Your task to perform on an android device: Open Yahoo.com Image 0: 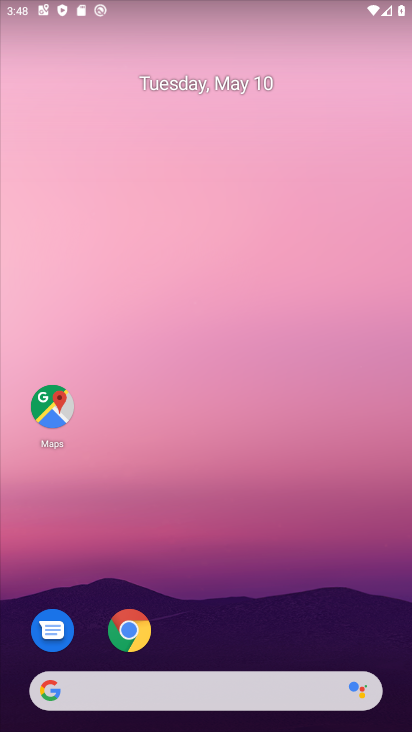
Step 0: click (130, 637)
Your task to perform on an android device: Open Yahoo.com Image 1: 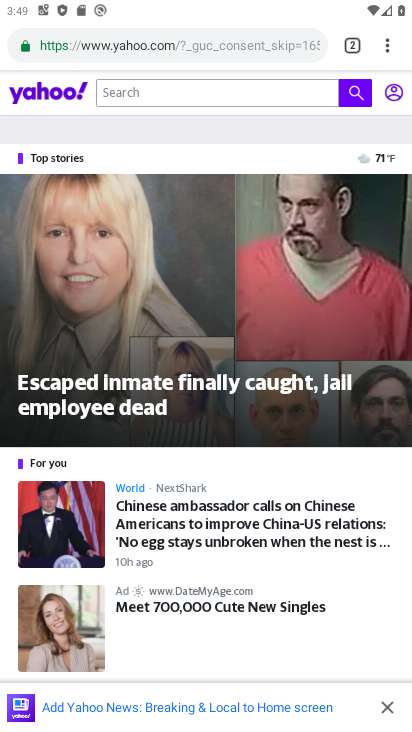
Step 1: task complete